Your task to perform on an android device: Open Google Image 0: 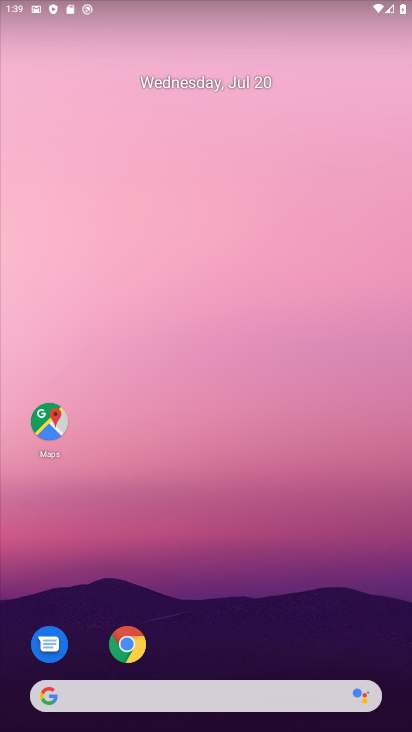
Step 0: drag from (189, 623) to (246, 0)
Your task to perform on an android device: Open Google Image 1: 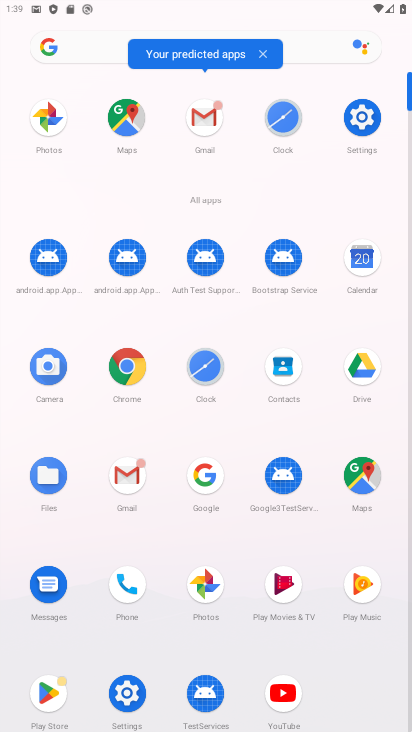
Step 1: click (205, 485)
Your task to perform on an android device: Open Google Image 2: 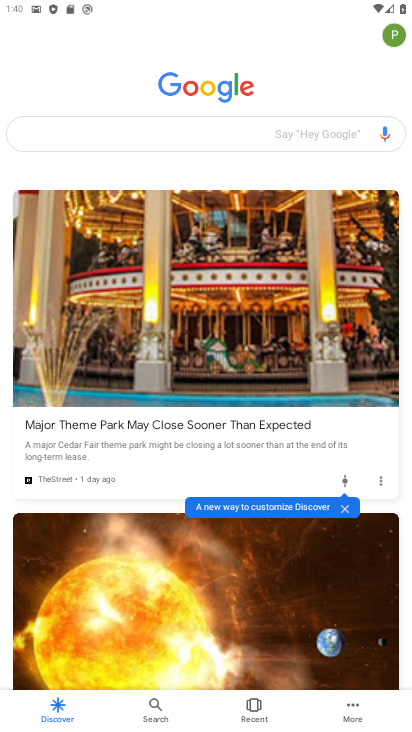
Step 2: task complete